Your task to perform on an android device: check data usage Image 0: 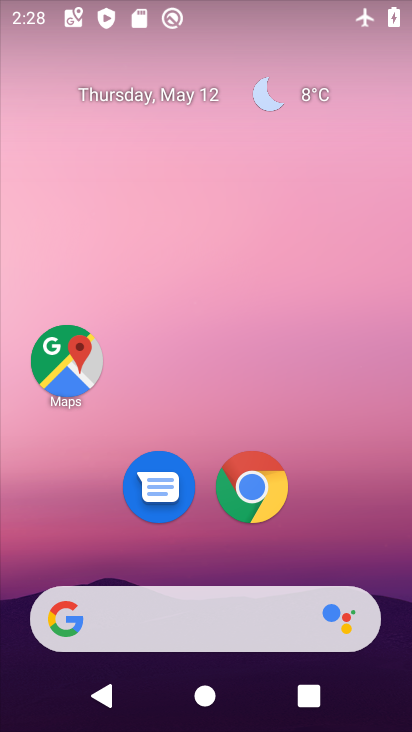
Step 0: drag from (379, 469) to (146, 19)
Your task to perform on an android device: check data usage Image 1: 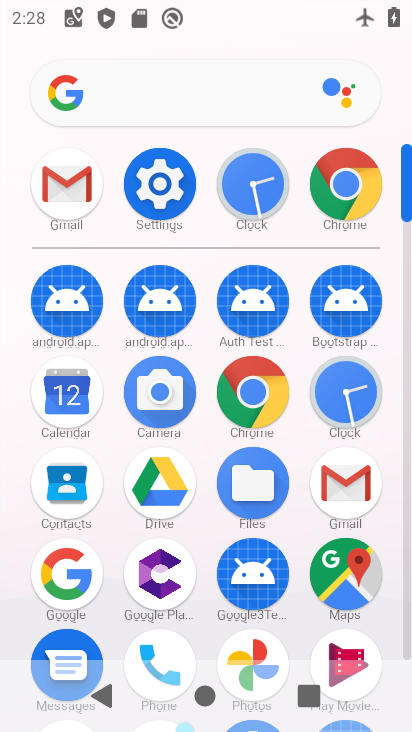
Step 1: click (170, 181)
Your task to perform on an android device: check data usage Image 2: 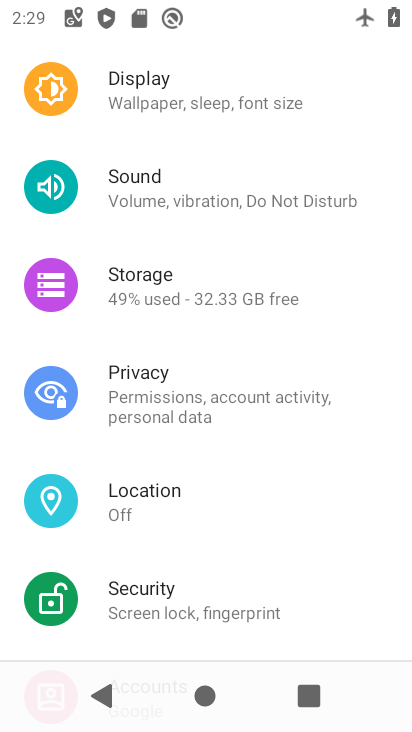
Step 2: drag from (254, 594) to (289, 698)
Your task to perform on an android device: check data usage Image 3: 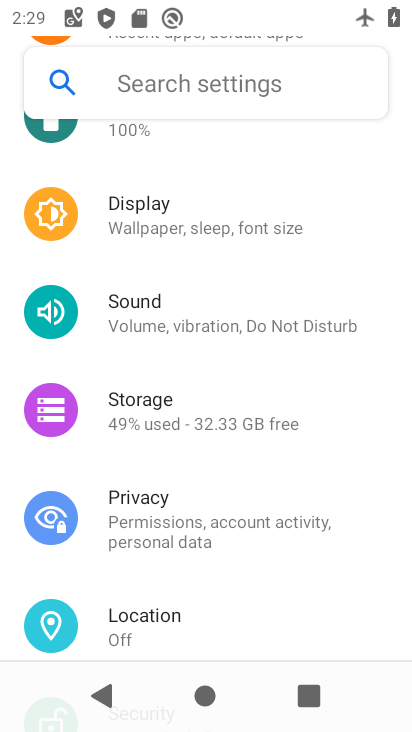
Step 3: drag from (252, 237) to (313, 587)
Your task to perform on an android device: check data usage Image 4: 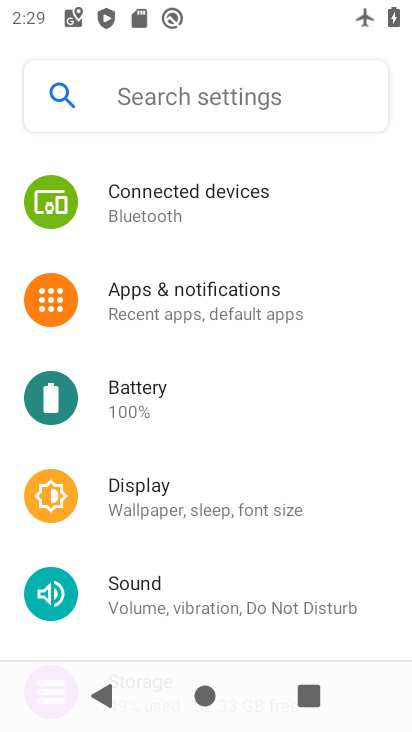
Step 4: drag from (247, 237) to (295, 506)
Your task to perform on an android device: check data usage Image 5: 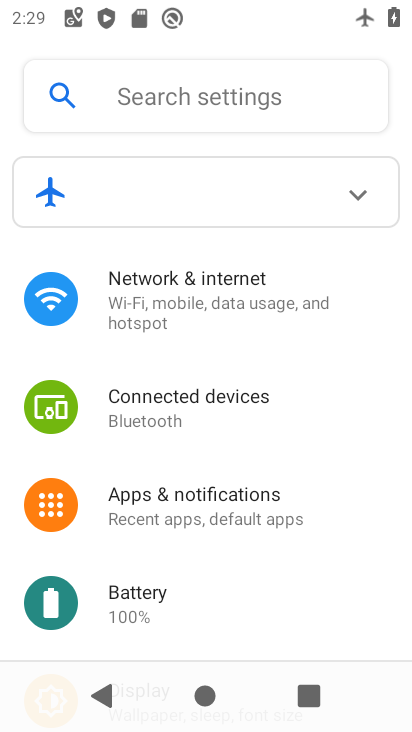
Step 5: click (256, 294)
Your task to perform on an android device: check data usage Image 6: 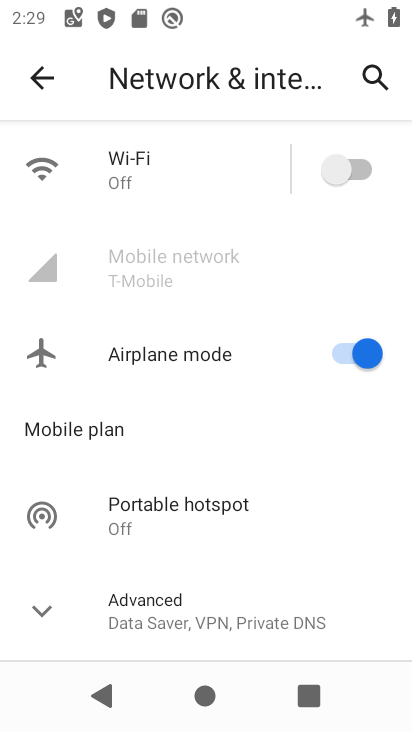
Step 6: click (168, 170)
Your task to perform on an android device: check data usage Image 7: 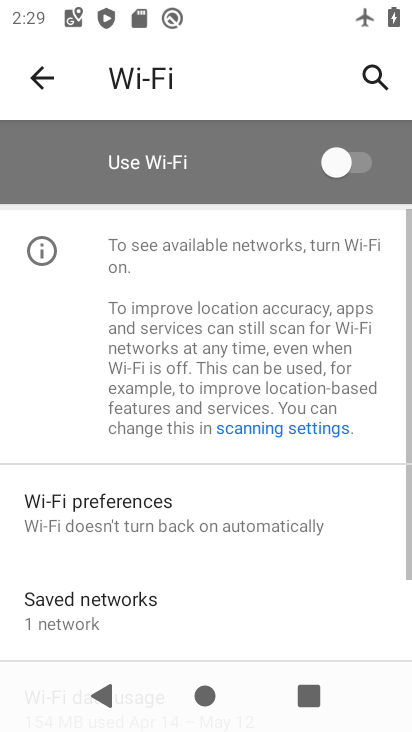
Step 7: drag from (186, 611) to (227, 196)
Your task to perform on an android device: check data usage Image 8: 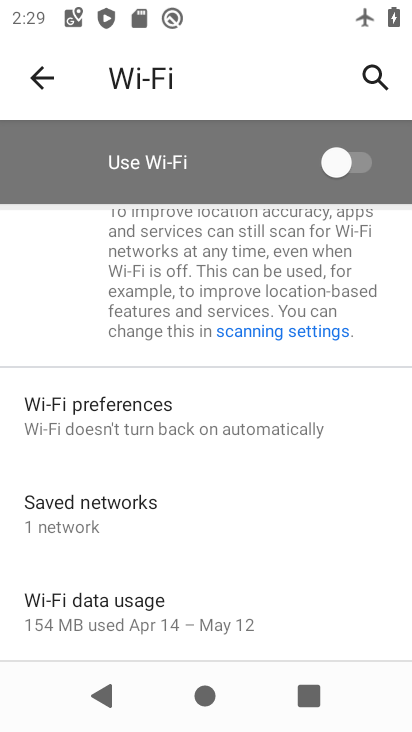
Step 8: click (152, 613)
Your task to perform on an android device: check data usage Image 9: 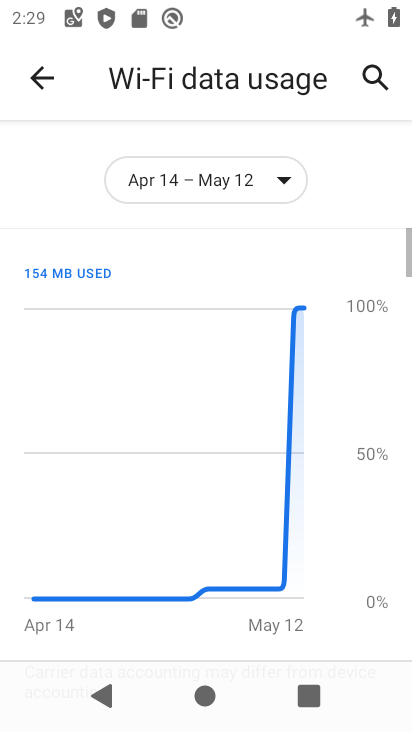
Step 9: task complete